Your task to perform on an android device: turn on improve location accuracy Image 0: 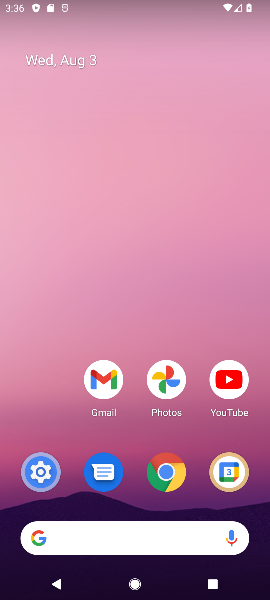
Step 0: drag from (31, 411) to (145, 0)
Your task to perform on an android device: turn on improve location accuracy Image 1: 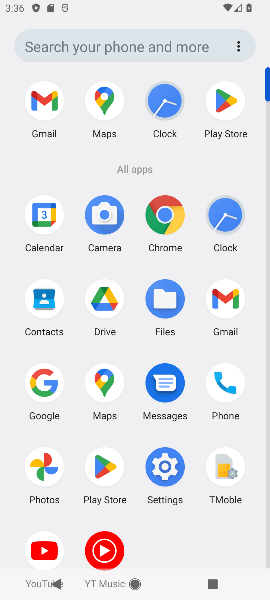
Step 1: click (171, 477)
Your task to perform on an android device: turn on improve location accuracy Image 2: 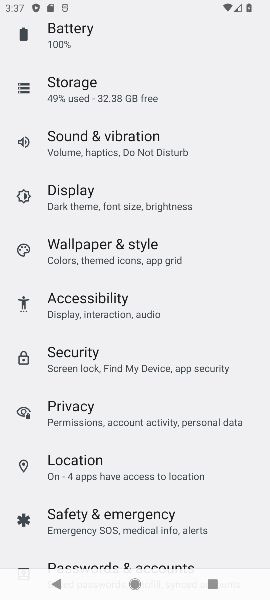
Step 2: click (111, 470)
Your task to perform on an android device: turn on improve location accuracy Image 3: 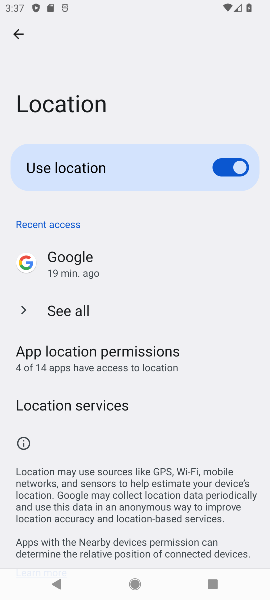
Step 3: task complete